Your task to perform on an android device: turn pop-ups on in chrome Image 0: 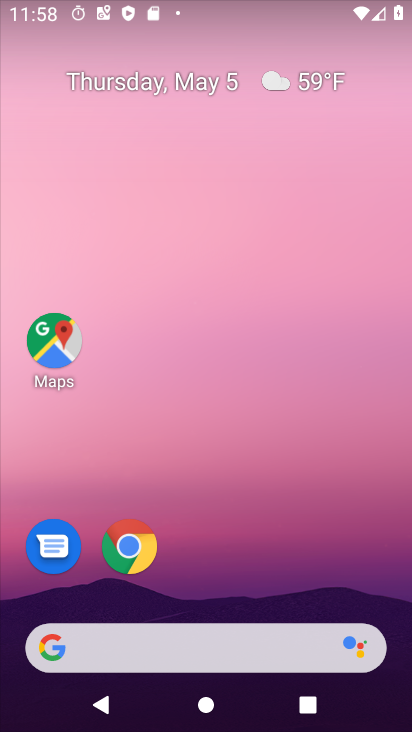
Step 0: click (263, 576)
Your task to perform on an android device: turn pop-ups on in chrome Image 1: 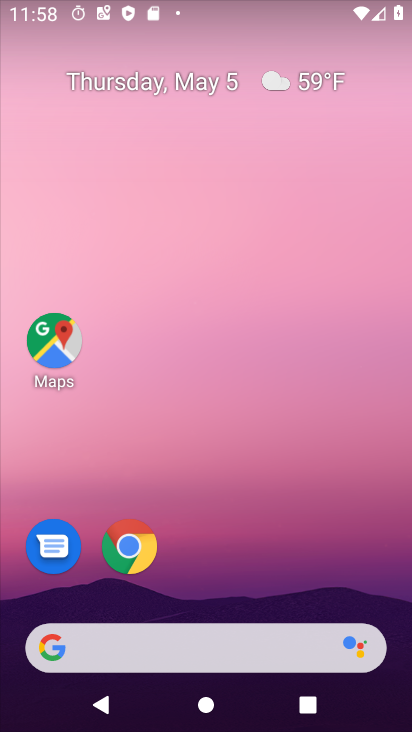
Step 1: click (130, 547)
Your task to perform on an android device: turn pop-ups on in chrome Image 2: 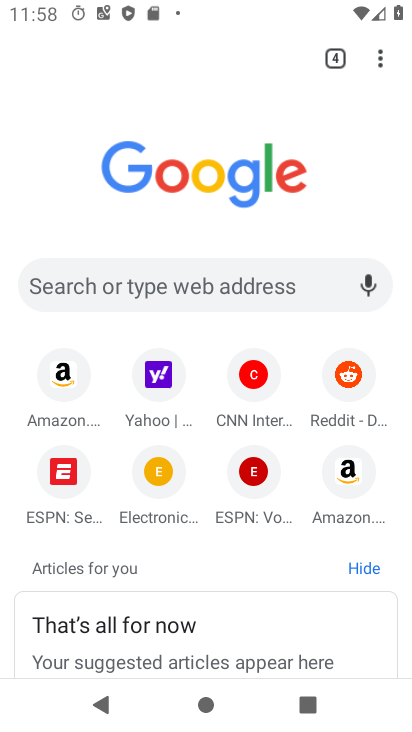
Step 2: click (386, 55)
Your task to perform on an android device: turn pop-ups on in chrome Image 3: 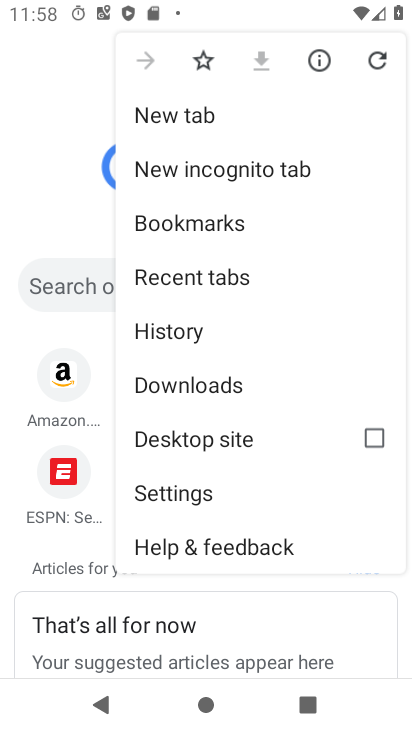
Step 3: click (196, 493)
Your task to perform on an android device: turn pop-ups on in chrome Image 4: 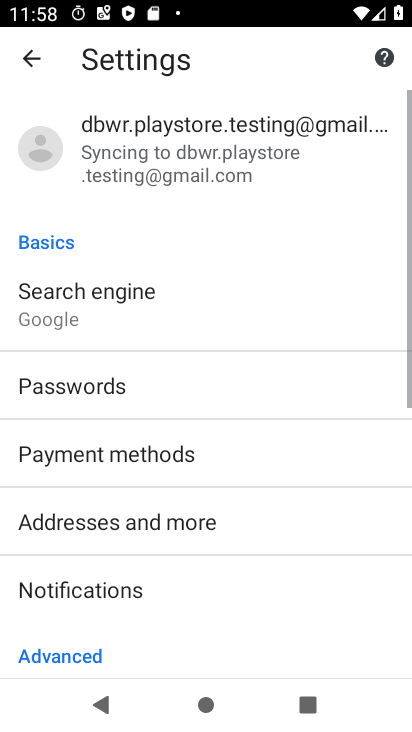
Step 4: drag from (222, 599) to (250, 268)
Your task to perform on an android device: turn pop-ups on in chrome Image 5: 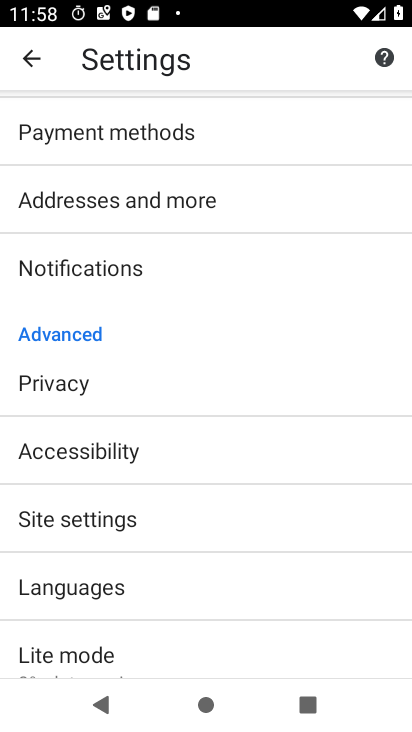
Step 5: click (114, 524)
Your task to perform on an android device: turn pop-ups on in chrome Image 6: 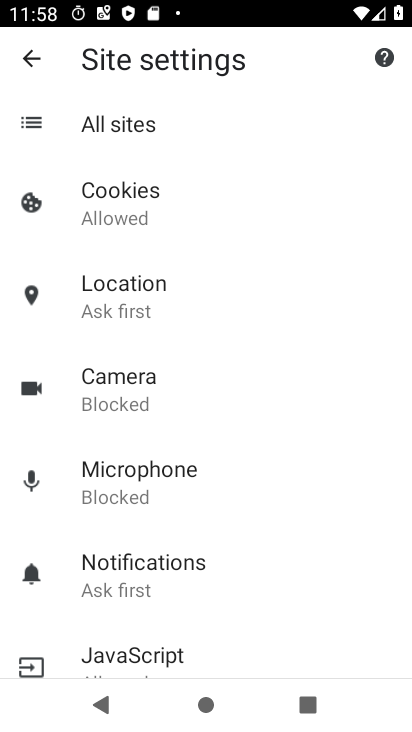
Step 6: drag from (171, 565) to (212, 250)
Your task to perform on an android device: turn pop-ups on in chrome Image 7: 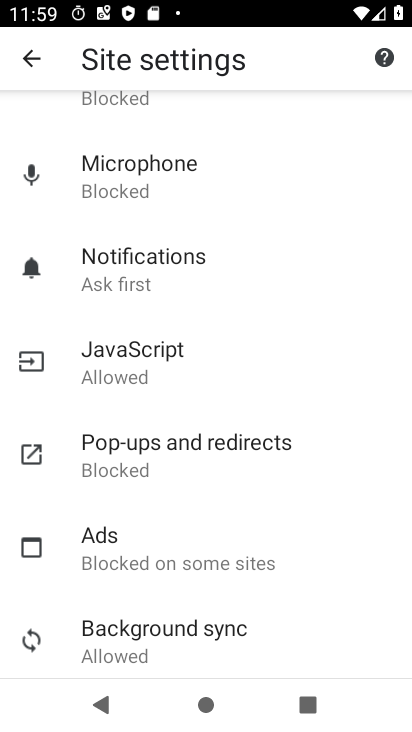
Step 7: click (168, 443)
Your task to perform on an android device: turn pop-ups on in chrome Image 8: 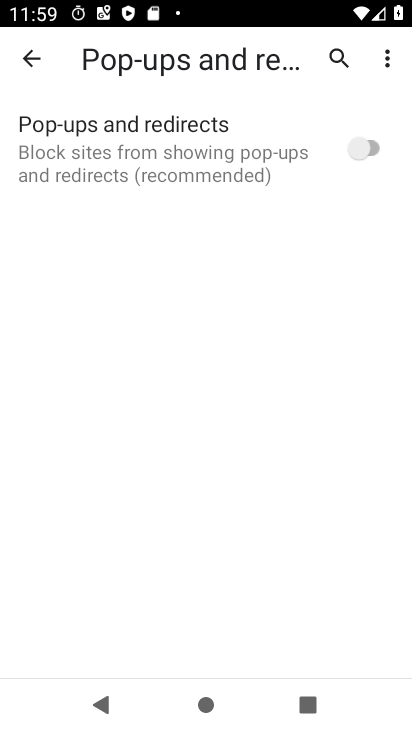
Step 8: click (369, 143)
Your task to perform on an android device: turn pop-ups on in chrome Image 9: 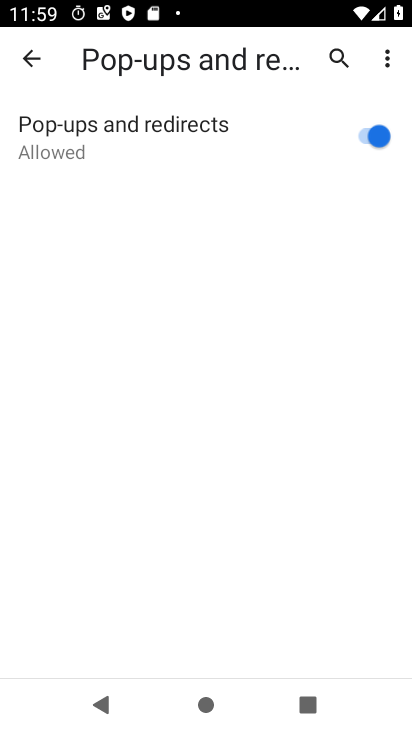
Step 9: task complete